Your task to perform on an android device: turn on the 12-hour format for clock Image 0: 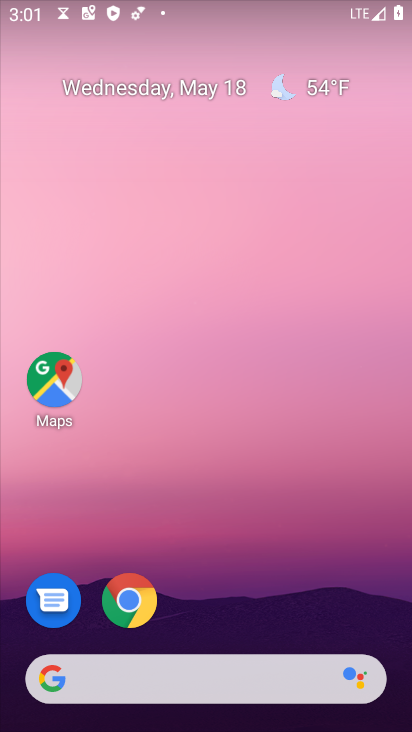
Step 0: press home button
Your task to perform on an android device: turn on the 12-hour format for clock Image 1: 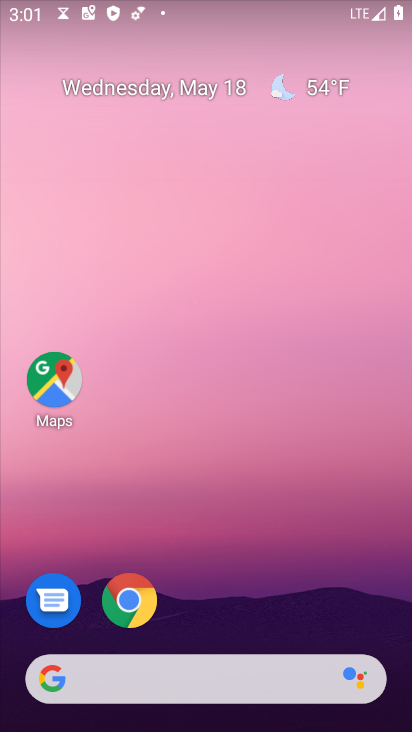
Step 1: drag from (126, 661) to (263, 185)
Your task to perform on an android device: turn on the 12-hour format for clock Image 2: 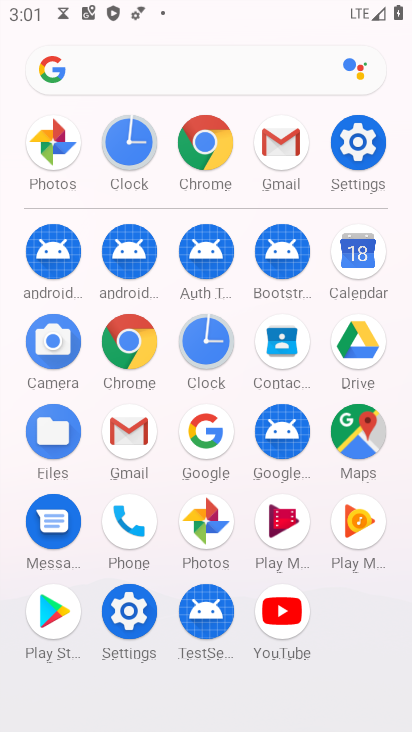
Step 2: click (131, 151)
Your task to perform on an android device: turn on the 12-hour format for clock Image 3: 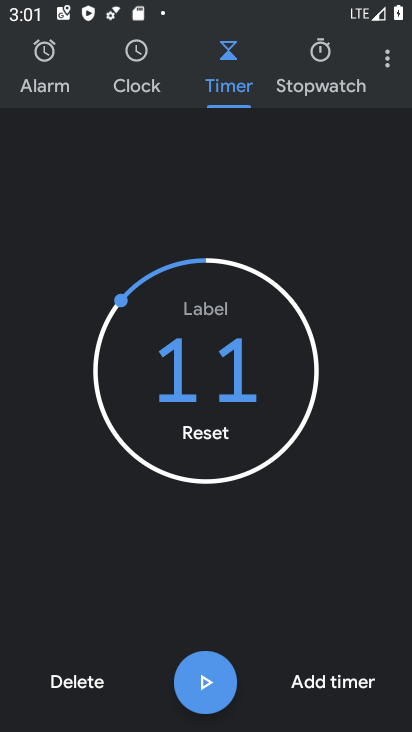
Step 3: click (389, 60)
Your task to perform on an android device: turn on the 12-hour format for clock Image 4: 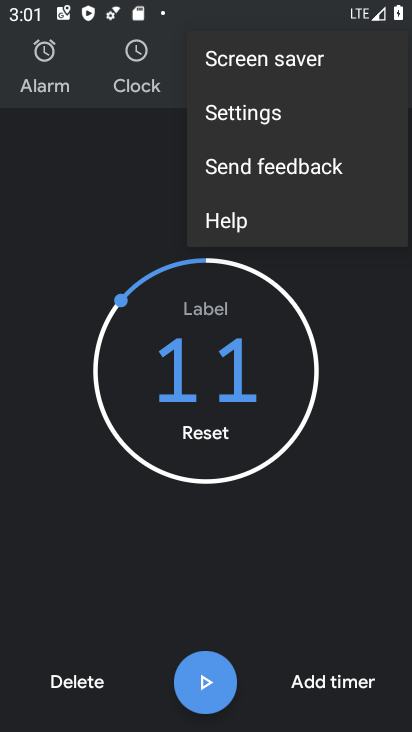
Step 4: click (272, 109)
Your task to perform on an android device: turn on the 12-hour format for clock Image 5: 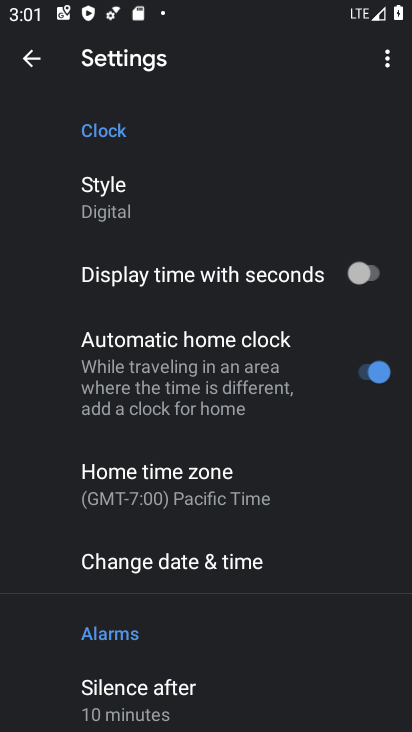
Step 5: click (166, 565)
Your task to perform on an android device: turn on the 12-hour format for clock Image 6: 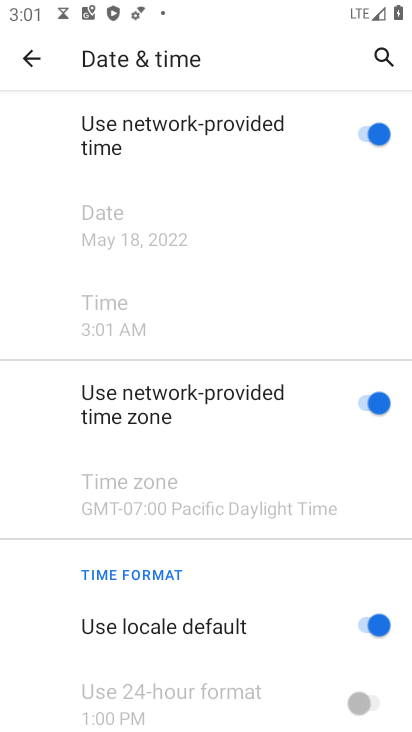
Step 6: task complete